Your task to perform on an android device: turn on airplane mode Image 0: 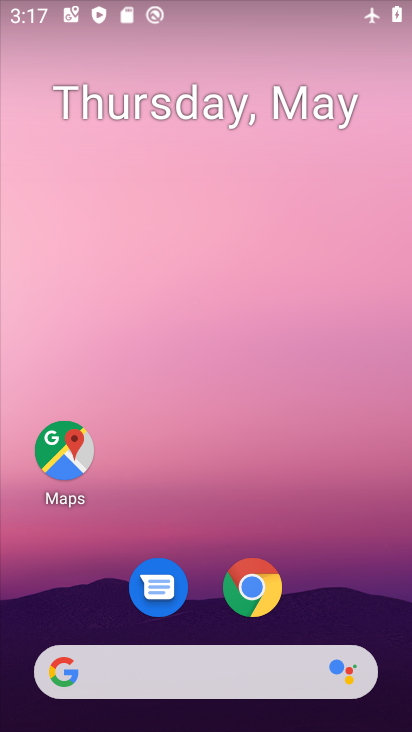
Step 0: drag from (224, 636) to (313, 122)
Your task to perform on an android device: turn on airplane mode Image 1: 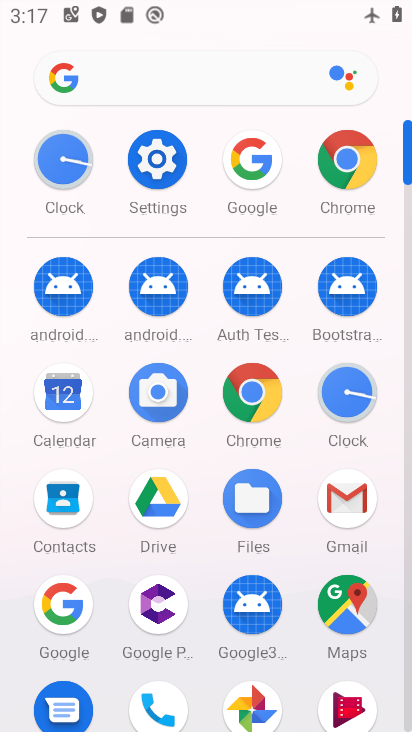
Step 1: click (161, 178)
Your task to perform on an android device: turn on airplane mode Image 2: 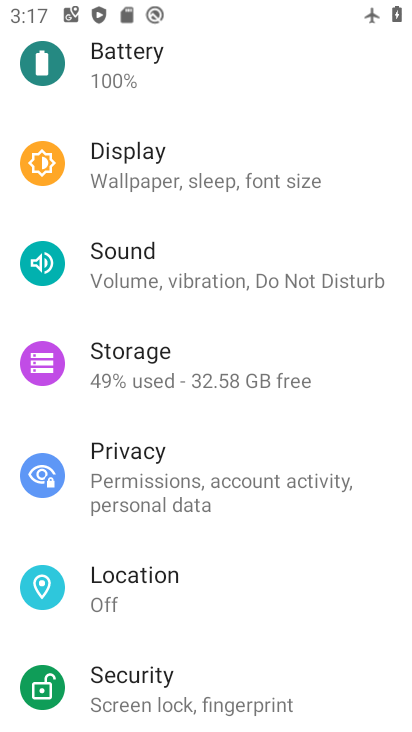
Step 2: drag from (181, 325) to (181, 600)
Your task to perform on an android device: turn on airplane mode Image 3: 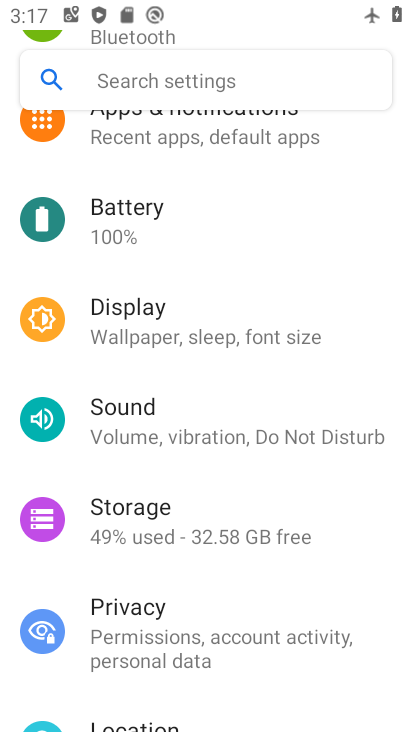
Step 3: drag from (252, 411) to (251, 645)
Your task to perform on an android device: turn on airplane mode Image 4: 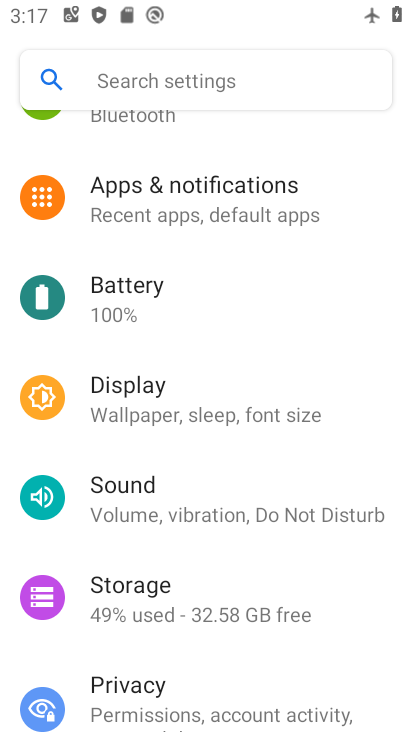
Step 4: drag from (248, 345) to (187, 708)
Your task to perform on an android device: turn on airplane mode Image 5: 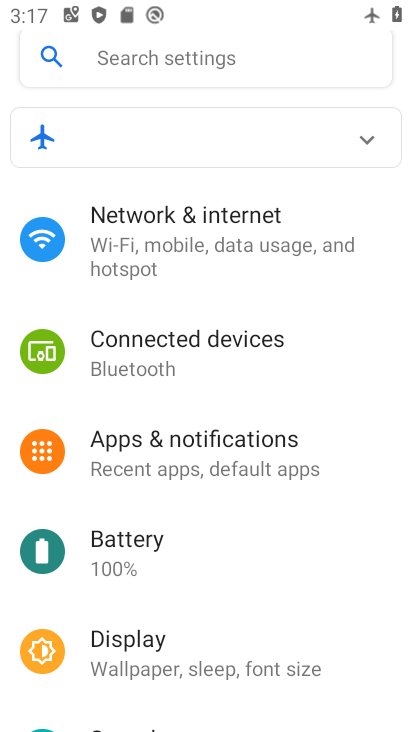
Step 5: click (236, 263)
Your task to perform on an android device: turn on airplane mode Image 6: 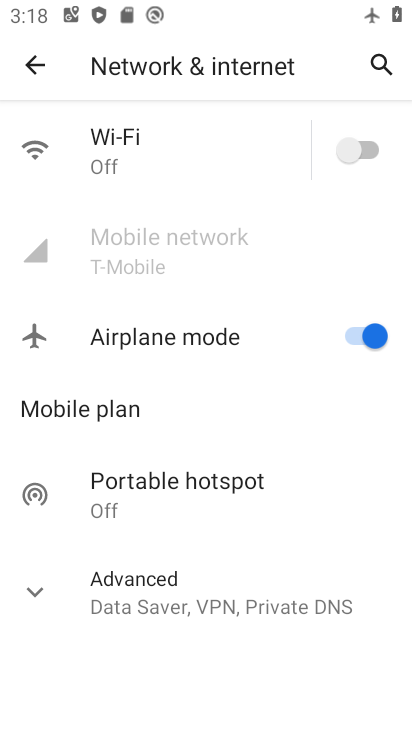
Step 6: task complete